Your task to perform on an android device: add a contact Image 0: 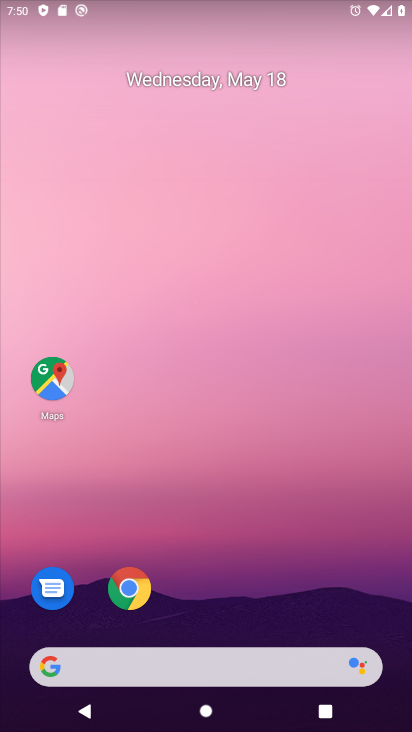
Step 0: drag from (219, 598) to (222, 194)
Your task to perform on an android device: add a contact Image 1: 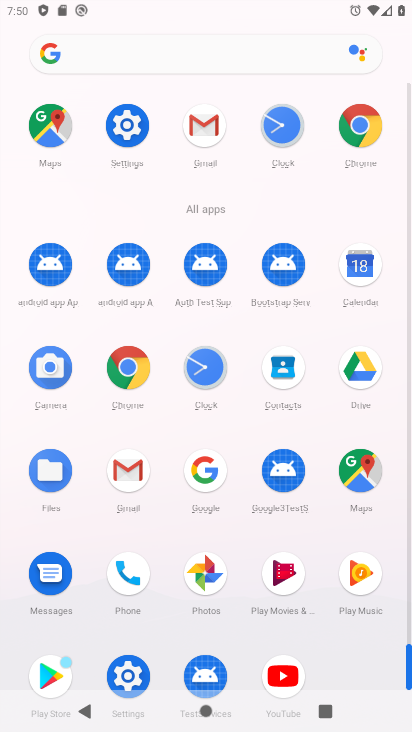
Step 1: click (293, 390)
Your task to perform on an android device: add a contact Image 2: 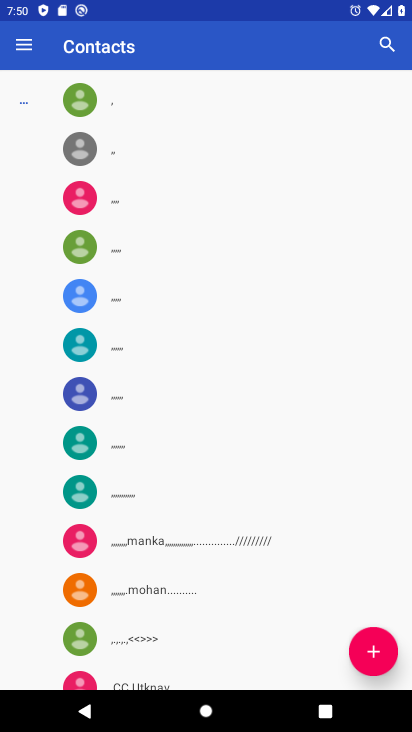
Step 2: click (379, 643)
Your task to perform on an android device: add a contact Image 3: 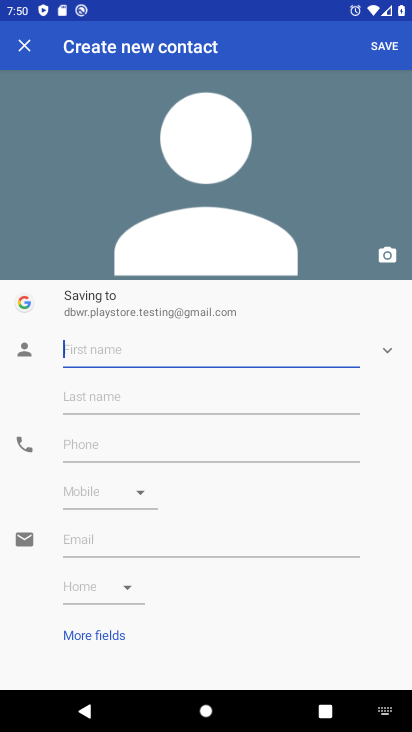
Step 3: type "bruno"
Your task to perform on an android device: add a contact Image 4: 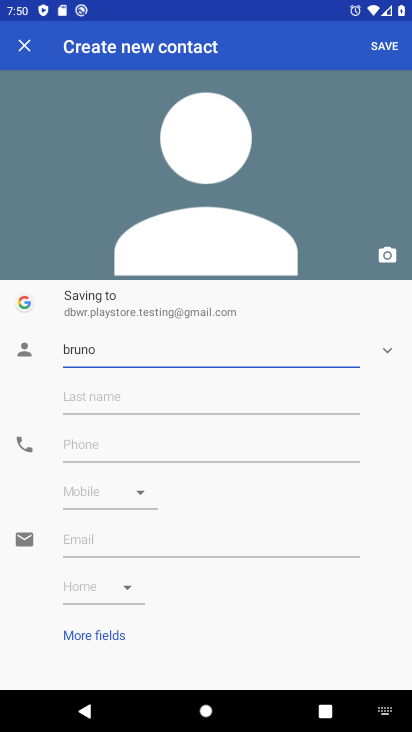
Step 4: click (372, 41)
Your task to perform on an android device: add a contact Image 5: 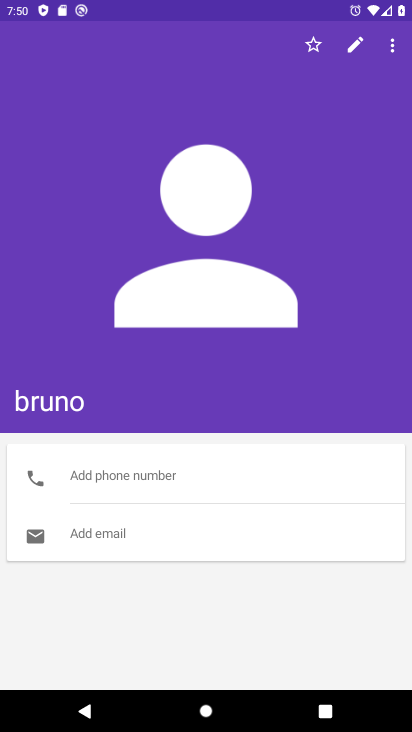
Step 5: task complete